Your task to perform on an android device: change timer sound Image 0: 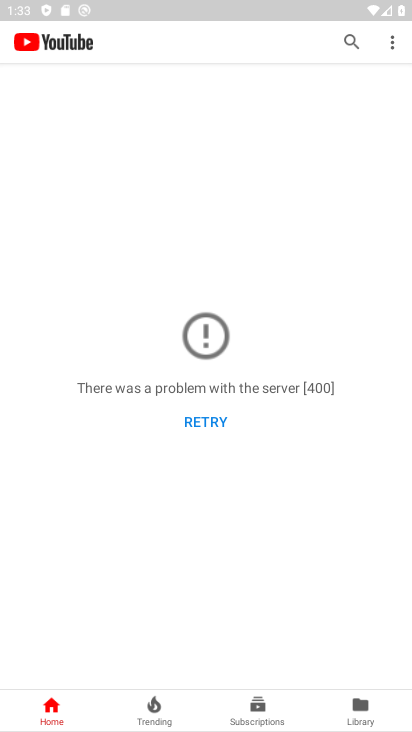
Step 0: press back button
Your task to perform on an android device: change timer sound Image 1: 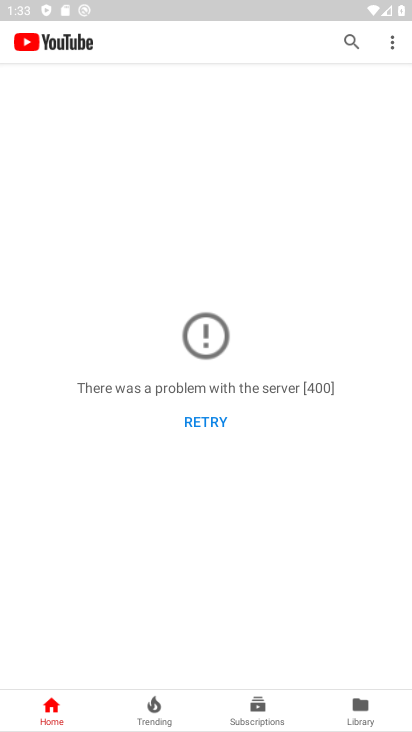
Step 1: press back button
Your task to perform on an android device: change timer sound Image 2: 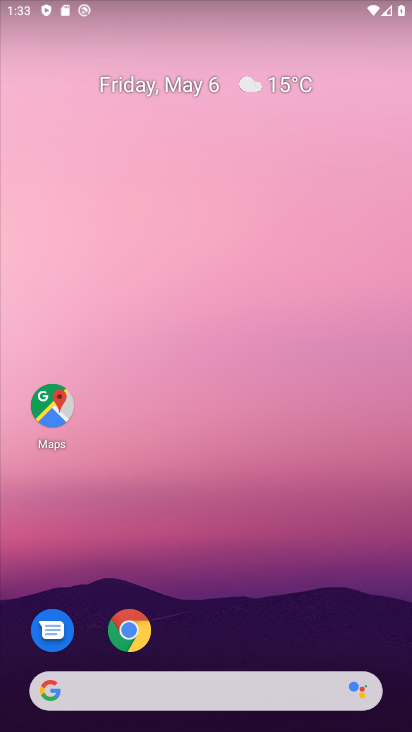
Step 2: drag from (245, 662) to (273, 118)
Your task to perform on an android device: change timer sound Image 3: 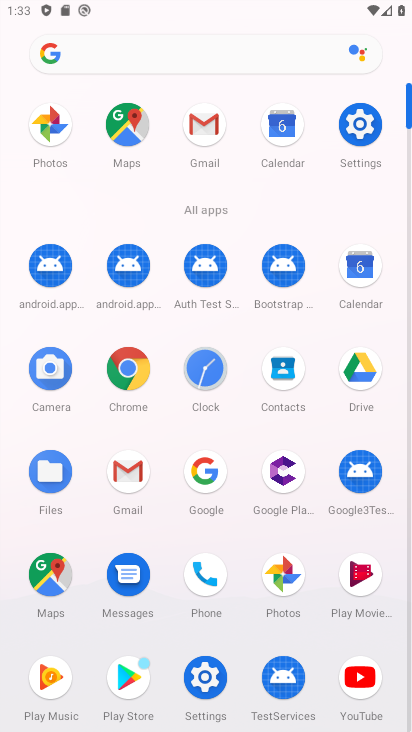
Step 3: click (197, 375)
Your task to perform on an android device: change timer sound Image 4: 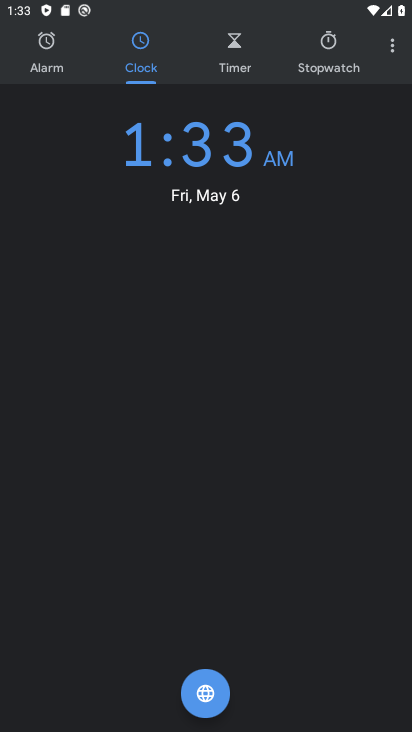
Step 4: click (388, 50)
Your task to perform on an android device: change timer sound Image 5: 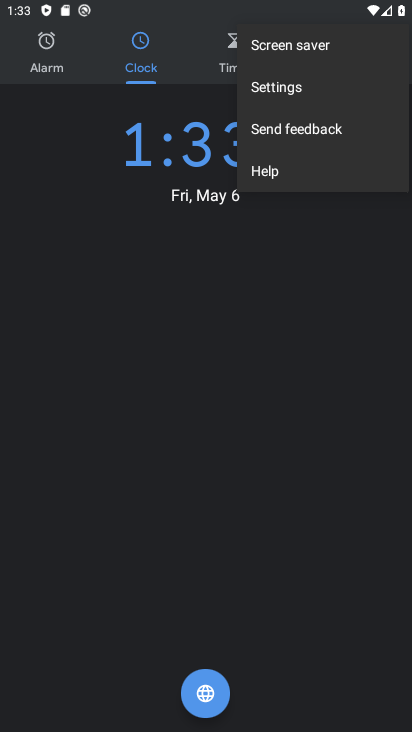
Step 5: click (307, 85)
Your task to perform on an android device: change timer sound Image 6: 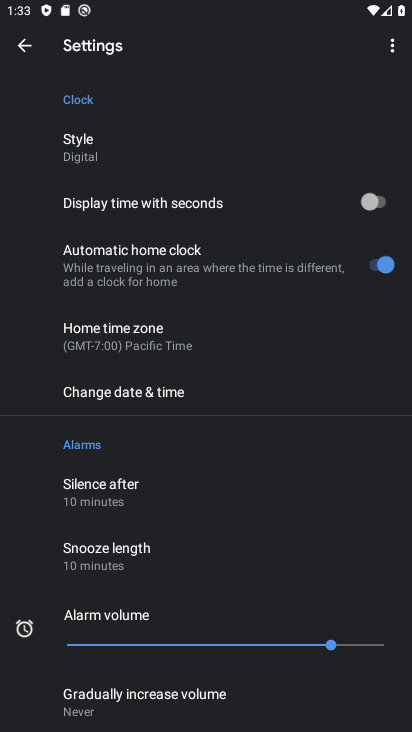
Step 6: drag from (210, 557) to (210, 169)
Your task to perform on an android device: change timer sound Image 7: 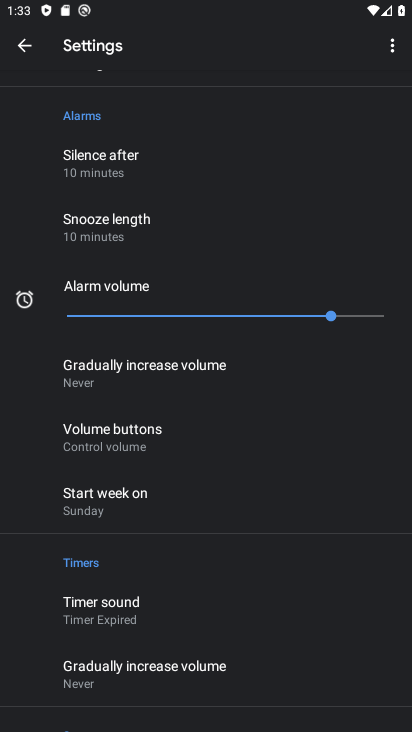
Step 7: click (156, 601)
Your task to perform on an android device: change timer sound Image 8: 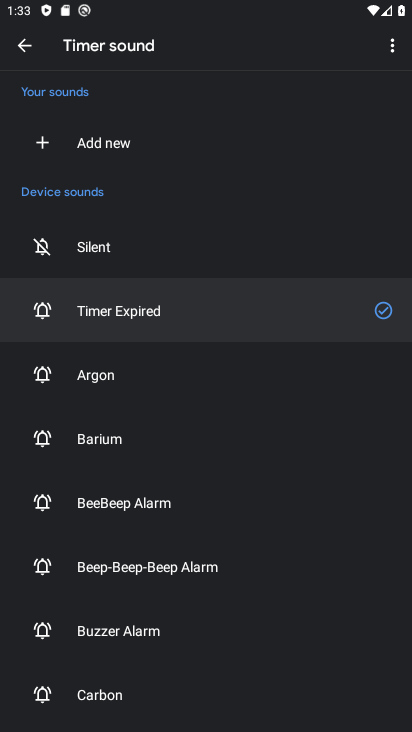
Step 8: click (112, 437)
Your task to perform on an android device: change timer sound Image 9: 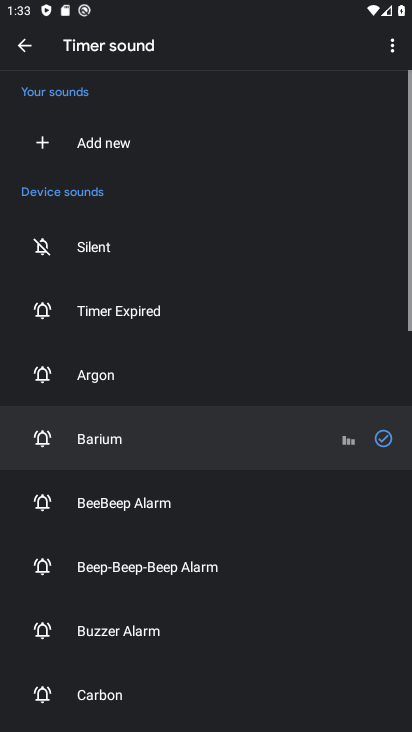
Step 9: task complete